Your task to perform on an android device: When is my next meeting? Image 0: 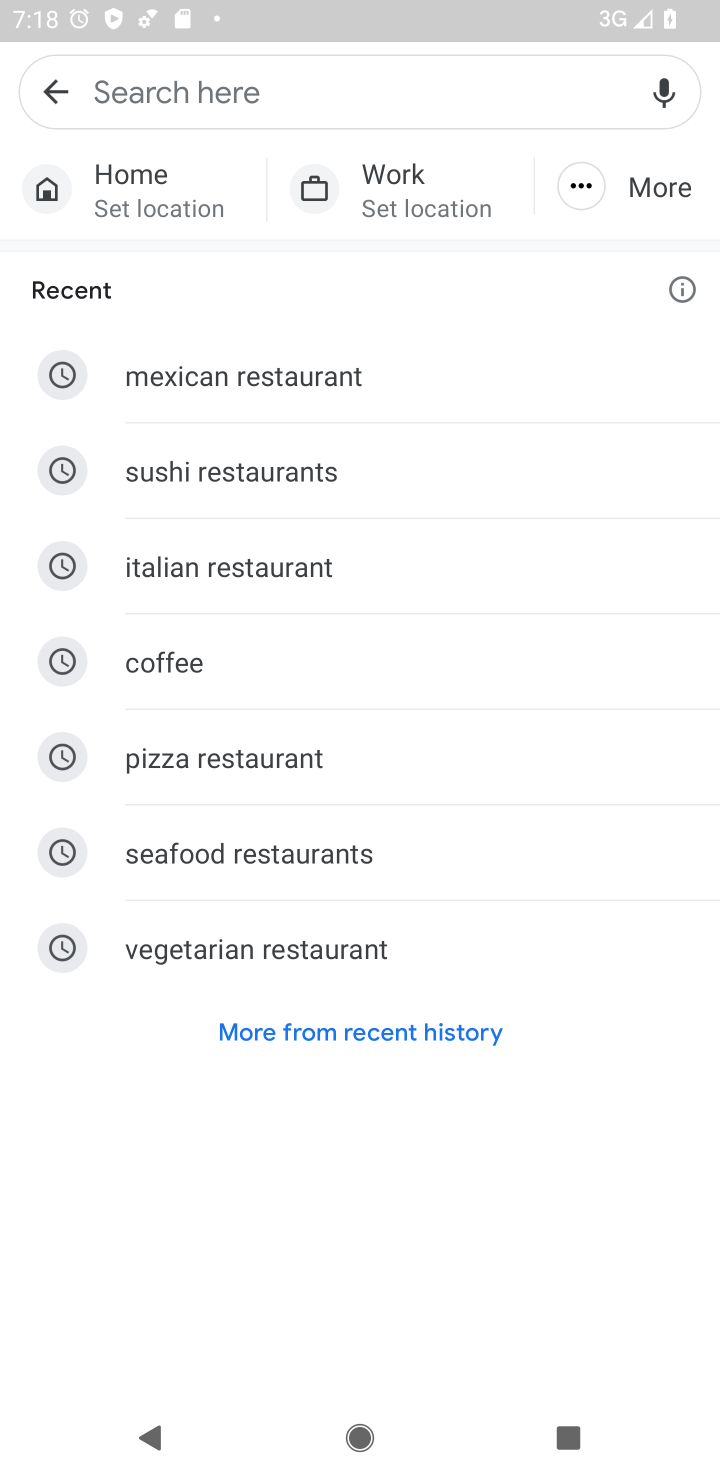
Step 0: press home button
Your task to perform on an android device: When is my next meeting? Image 1: 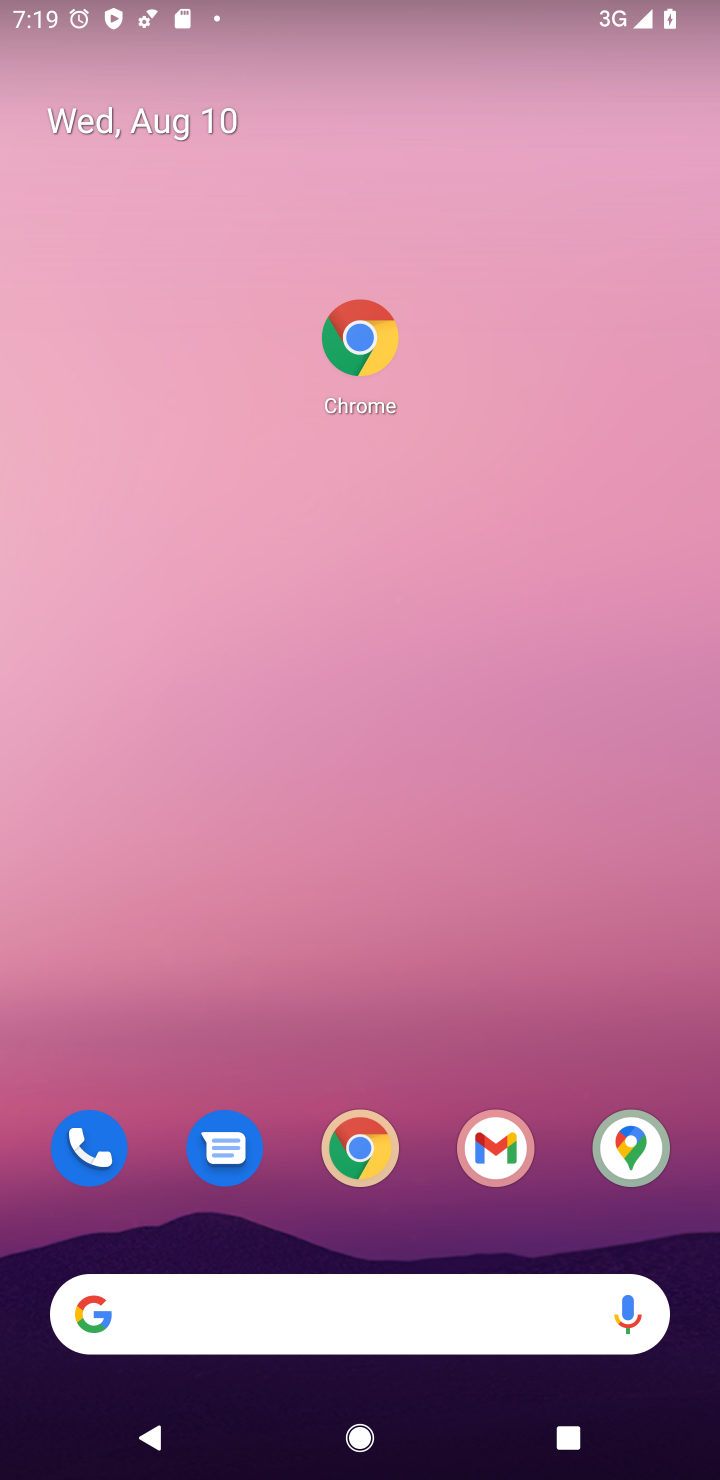
Step 1: click (111, 108)
Your task to perform on an android device: When is my next meeting? Image 2: 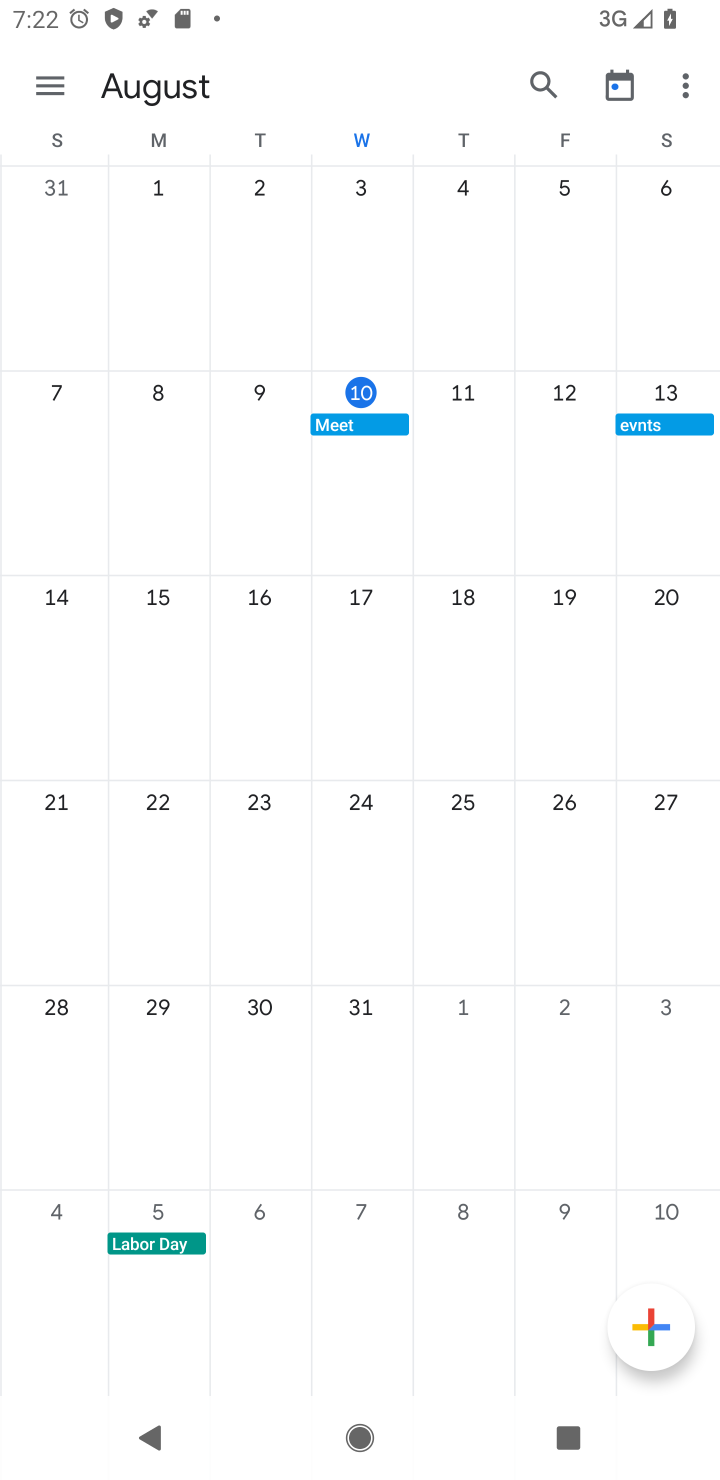
Step 2: click (34, 75)
Your task to perform on an android device: When is my next meeting? Image 3: 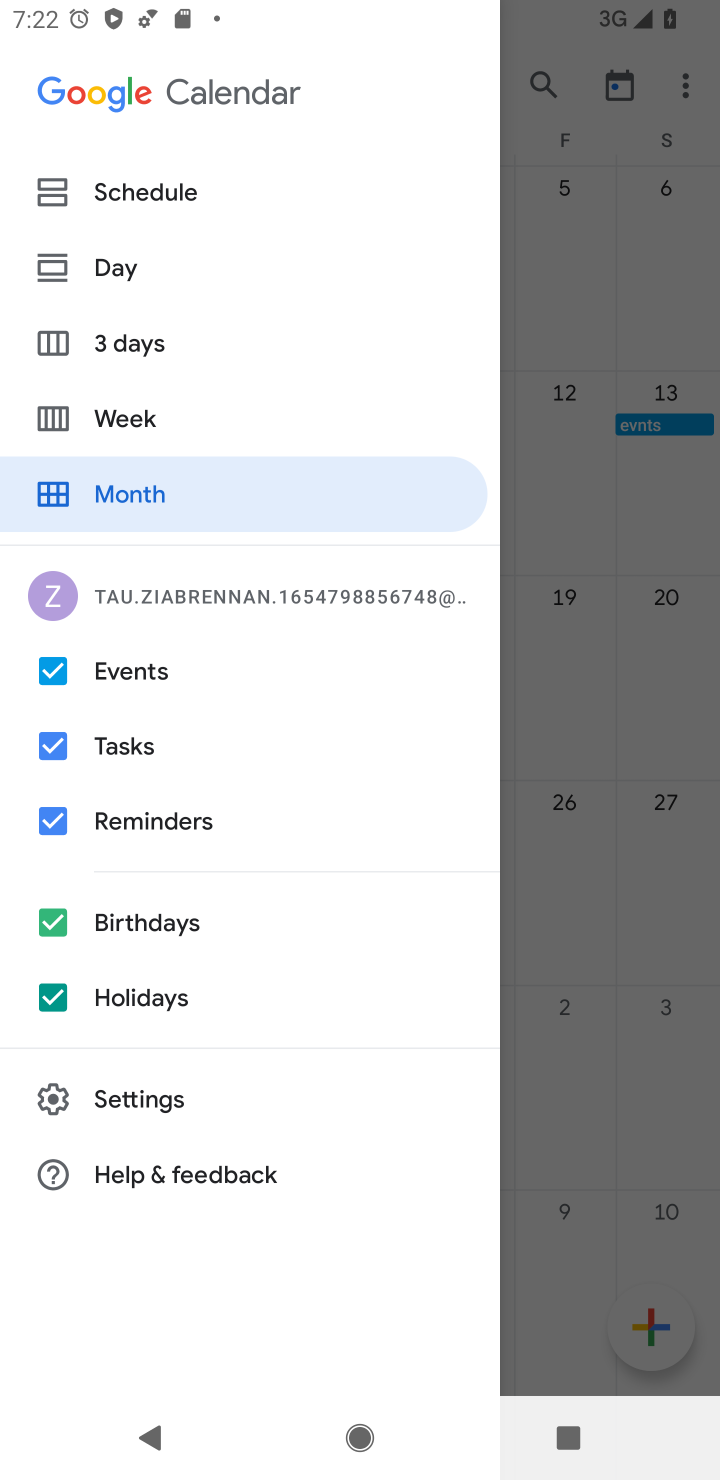
Step 3: click (111, 270)
Your task to perform on an android device: When is my next meeting? Image 4: 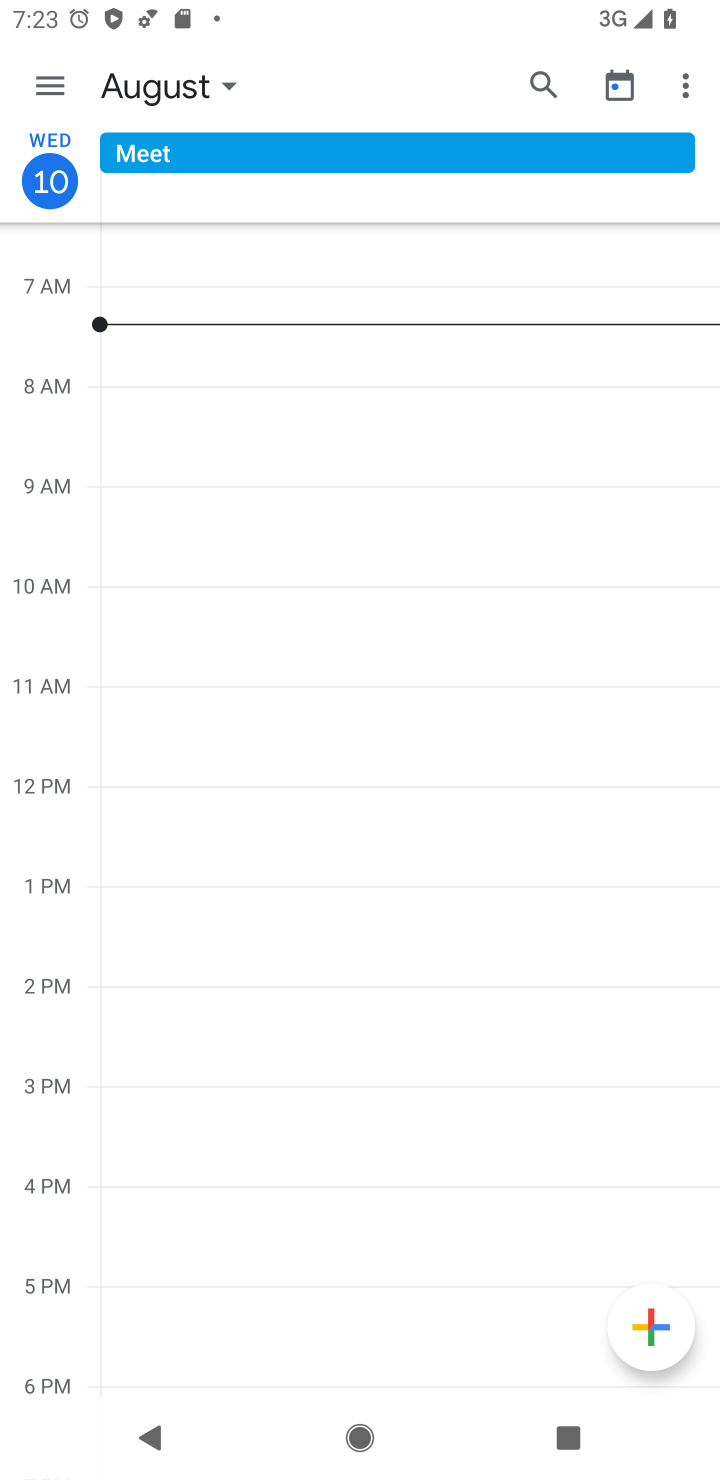
Step 4: task complete